Your task to perform on an android device: Open the Play Movies app and select the watchlist tab. Image 0: 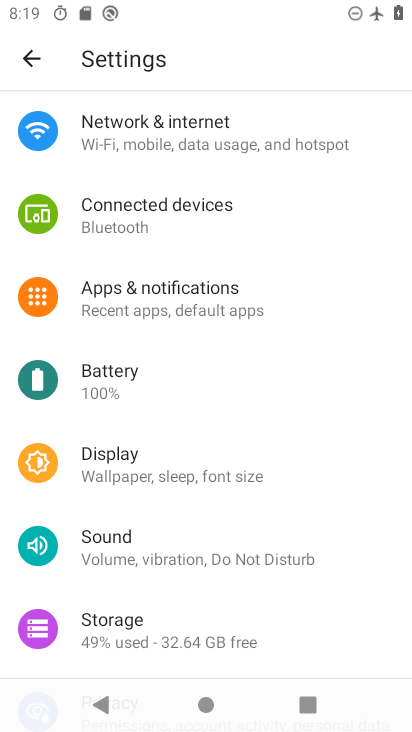
Step 0: press home button
Your task to perform on an android device: Open the Play Movies app and select the watchlist tab. Image 1: 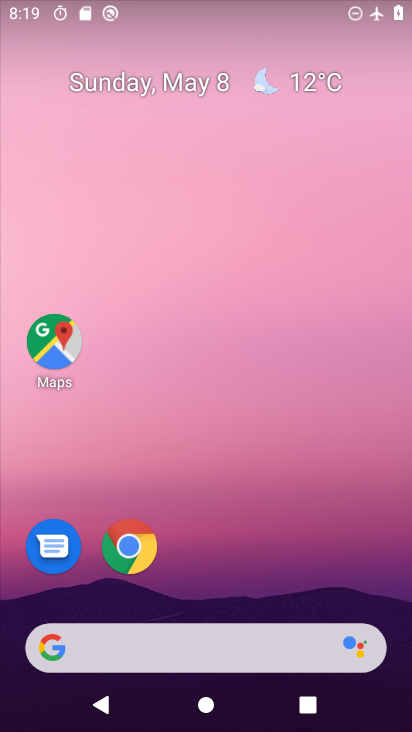
Step 1: drag from (260, 515) to (260, 105)
Your task to perform on an android device: Open the Play Movies app and select the watchlist tab. Image 2: 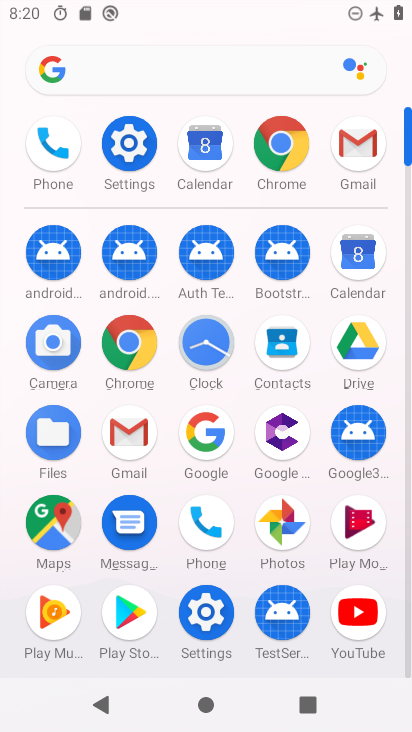
Step 2: click (353, 533)
Your task to perform on an android device: Open the Play Movies app and select the watchlist tab. Image 3: 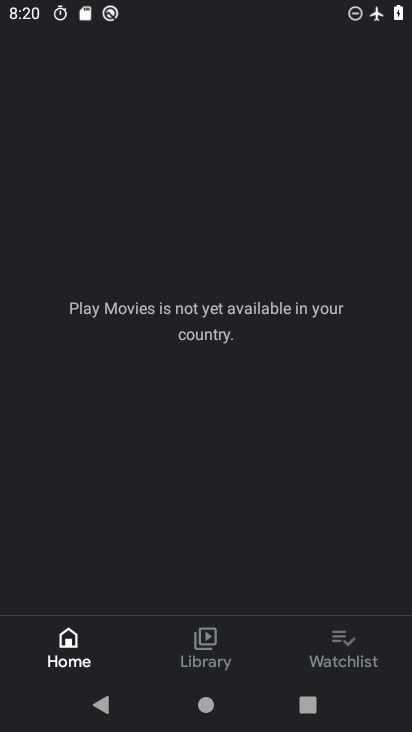
Step 3: click (348, 648)
Your task to perform on an android device: Open the Play Movies app and select the watchlist tab. Image 4: 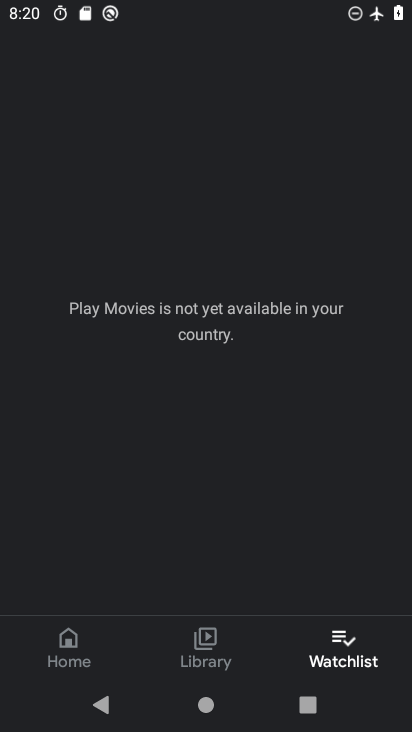
Step 4: task complete